Your task to perform on an android device: Open the phone app and click the voicemail tab. Image 0: 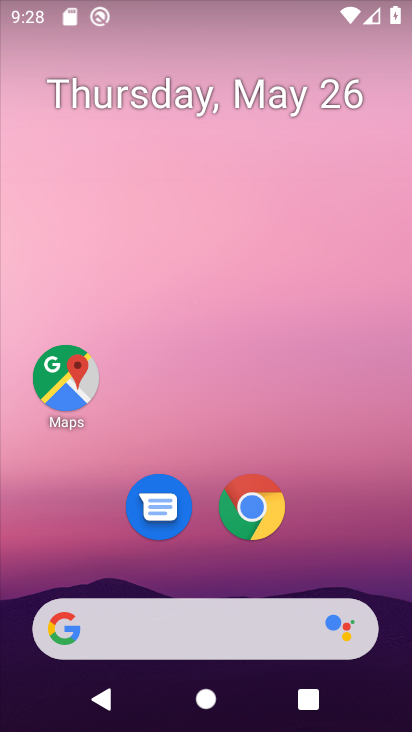
Step 0: drag from (380, 560) to (372, 204)
Your task to perform on an android device: Open the phone app and click the voicemail tab. Image 1: 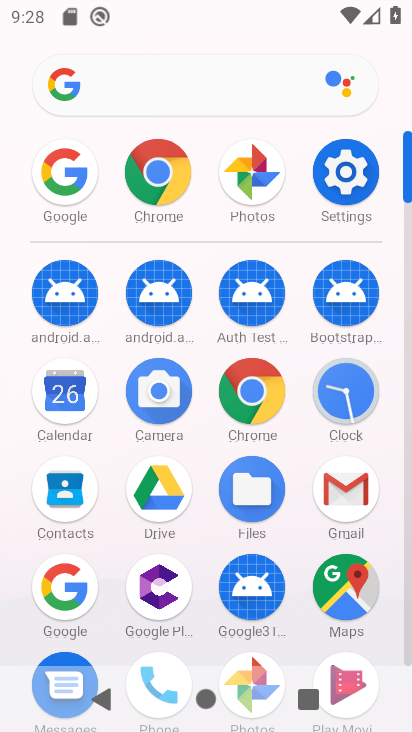
Step 1: drag from (386, 564) to (380, 318)
Your task to perform on an android device: Open the phone app and click the voicemail tab. Image 2: 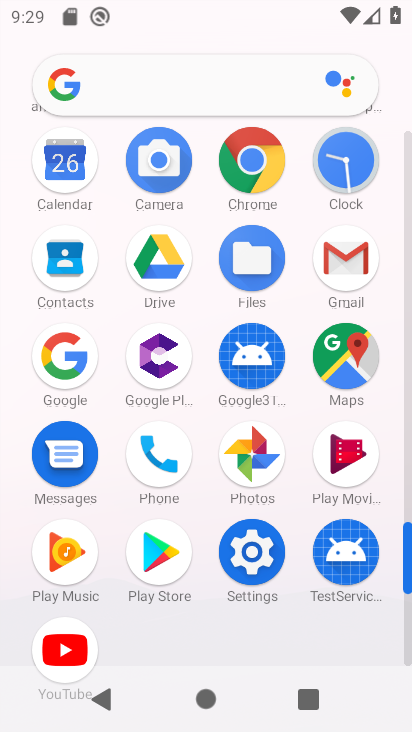
Step 2: click (163, 454)
Your task to perform on an android device: Open the phone app and click the voicemail tab. Image 3: 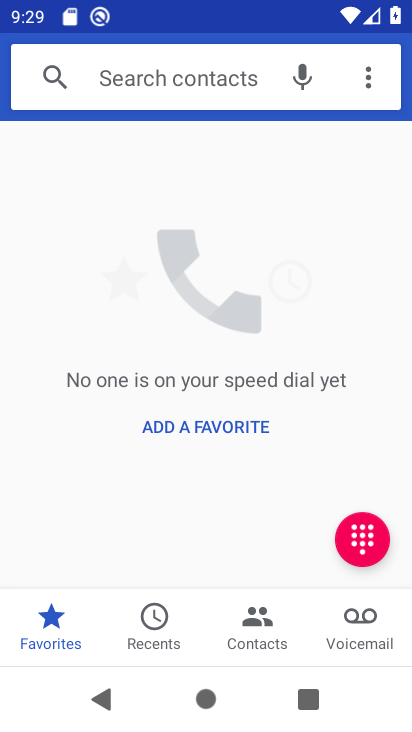
Step 3: click (359, 620)
Your task to perform on an android device: Open the phone app and click the voicemail tab. Image 4: 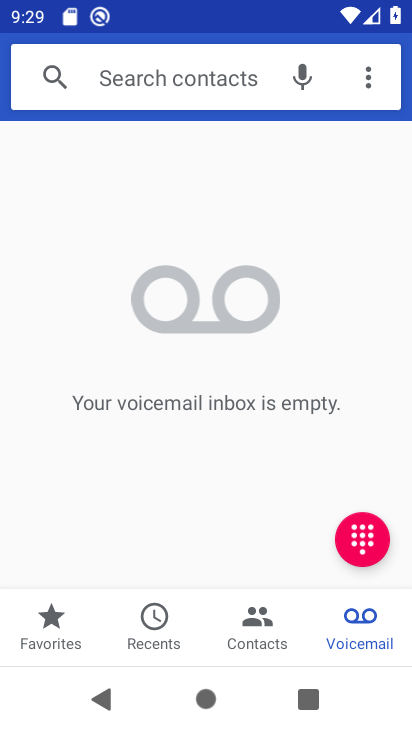
Step 4: task complete